Your task to perform on an android device: Open Google Image 0: 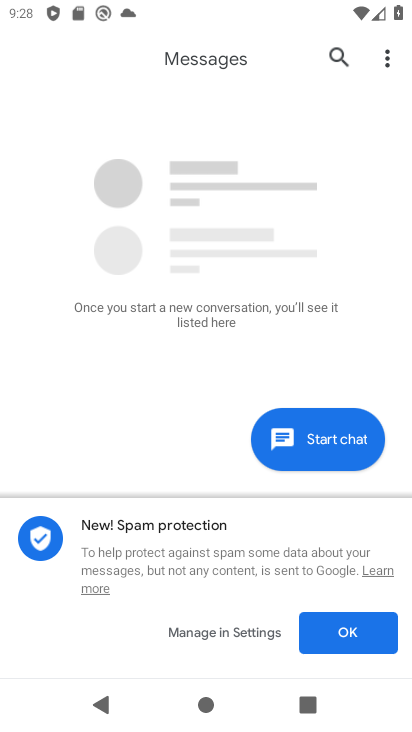
Step 0: press home button
Your task to perform on an android device: Open Google Image 1: 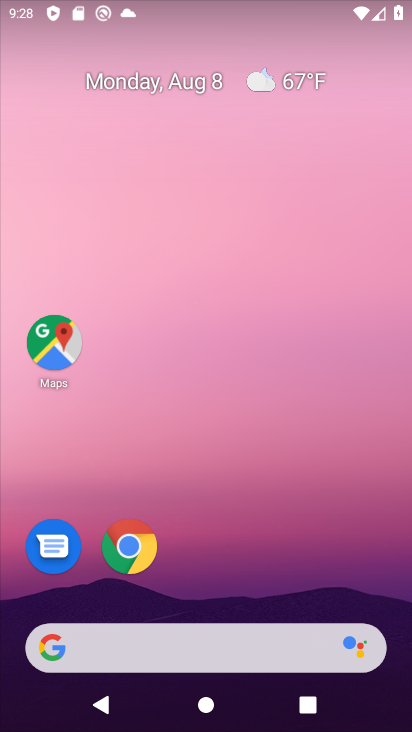
Step 1: click (222, 645)
Your task to perform on an android device: Open Google Image 2: 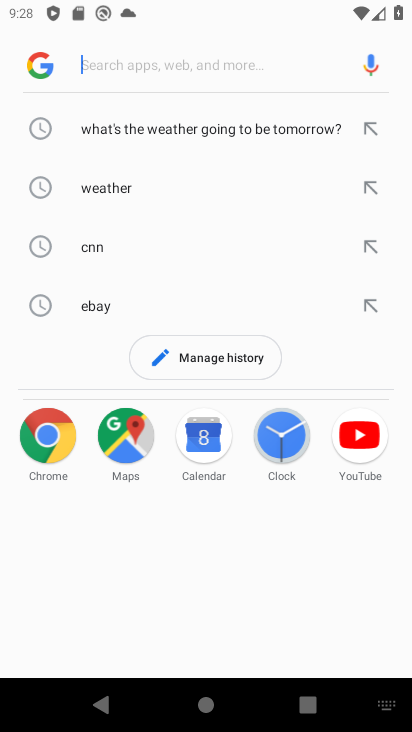
Step 2: task complete